Your task to perform on an android device: Clear all items from cart on costco.com. Add "razer thresher" to the cart on costco.com Image 0: 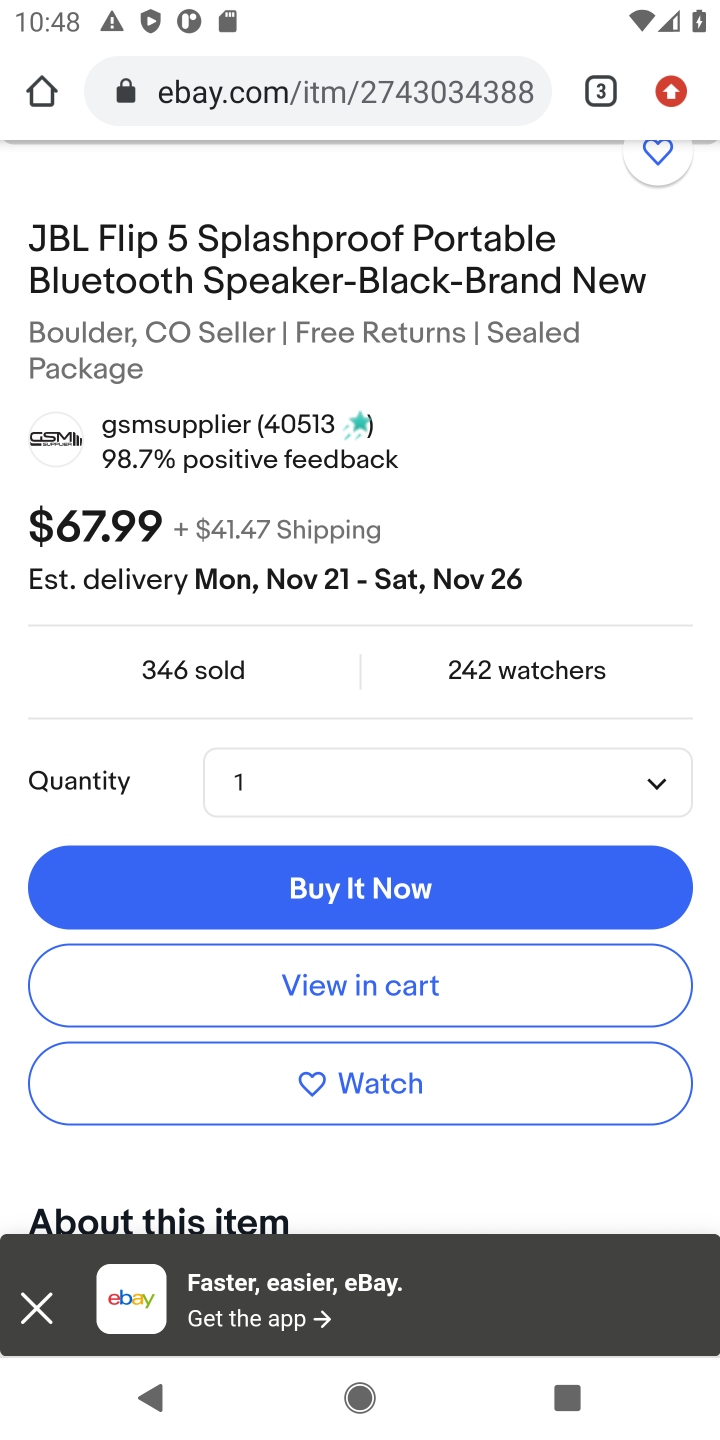
Step 0: press home button
Your task to perform on an android device: Clear all items from cart on costco.com. Add "razer thresher" to the cart on costco.com Image 1: 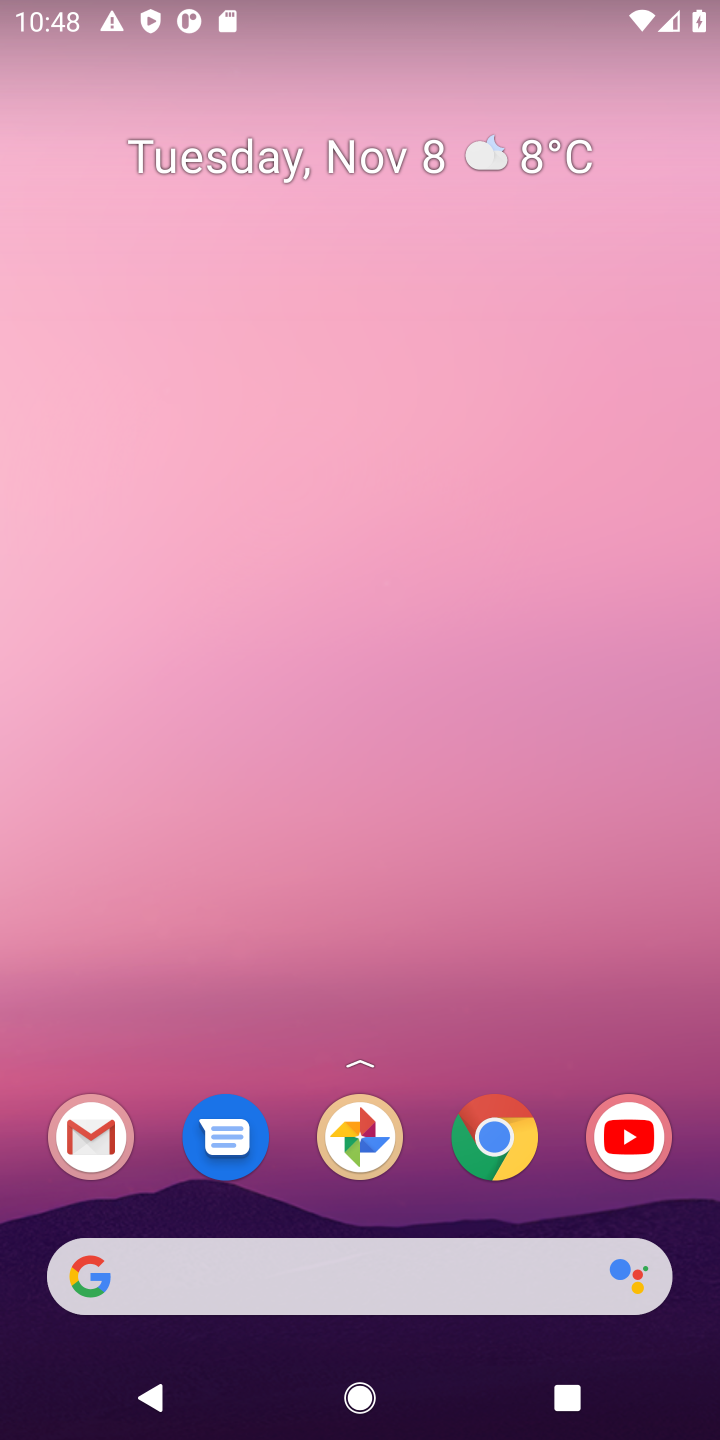
Step 1: click (503, 1152)
Your task to perform on an android device: Clear all items from cart on costco.com. Add "razer thresher" to the cart on costco.com Image 2: 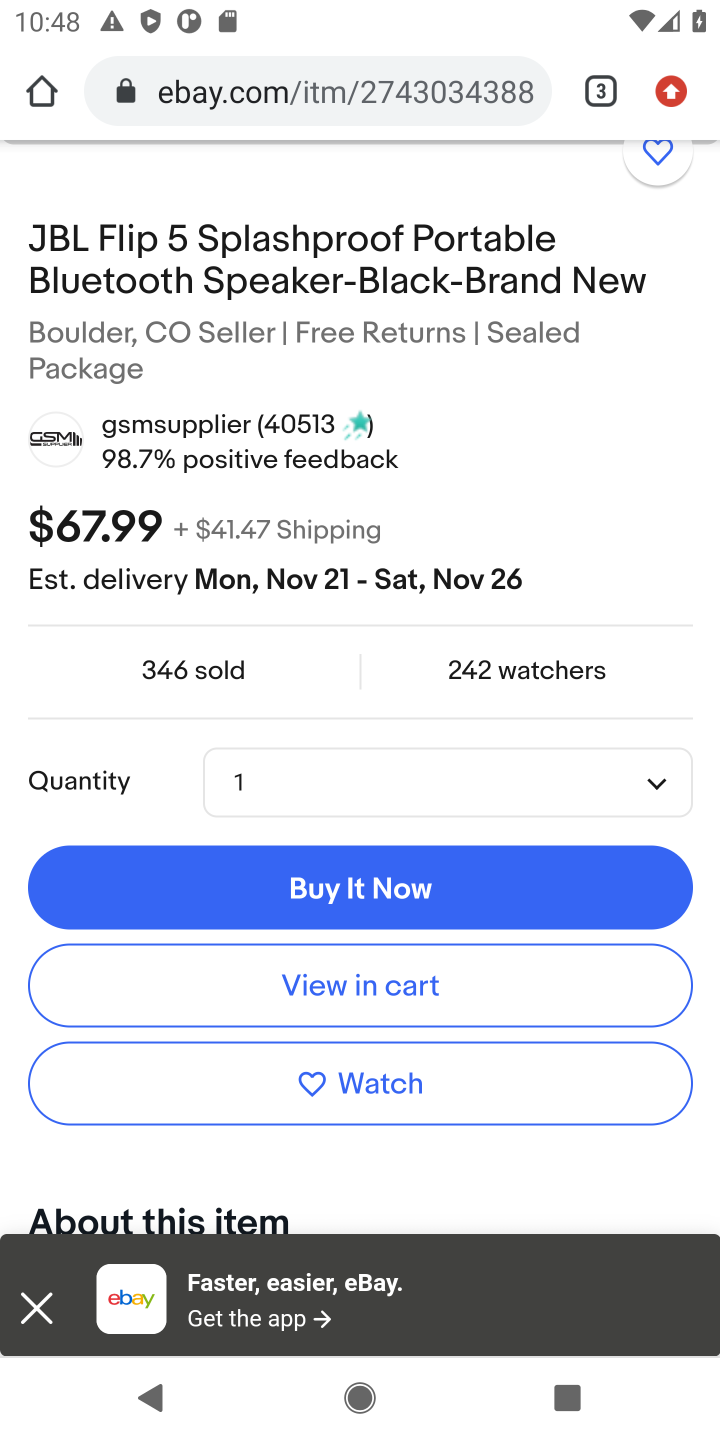
Step 2: click (604, 93)
Your task to perform on an android device: Clear all items from cart on costco.com. Add "razer thresher" to the cart on costco.com Image 3: 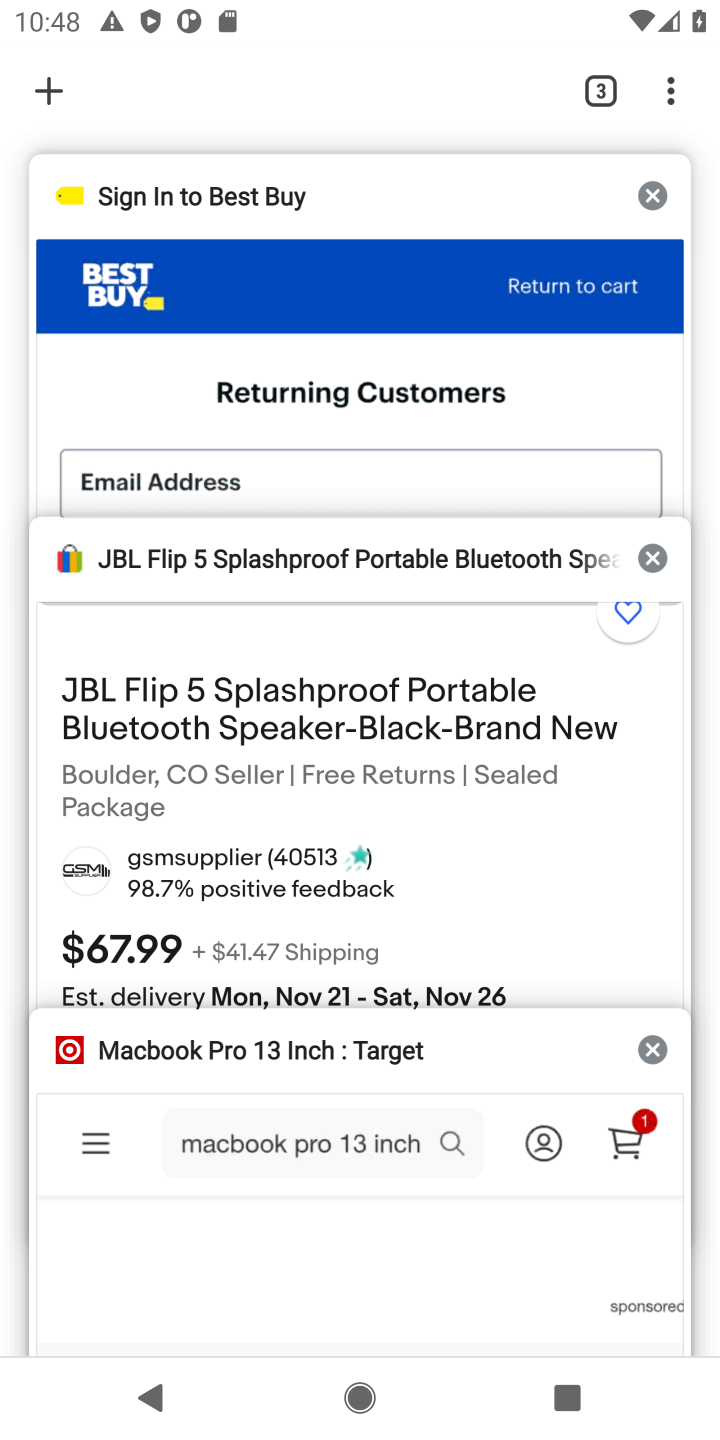
Step 3: click (43, 77)
Your task to perform on an android device: Clear all items from cart on costco.com. Add "razer thresher" to the cart on costco.com Image 4: 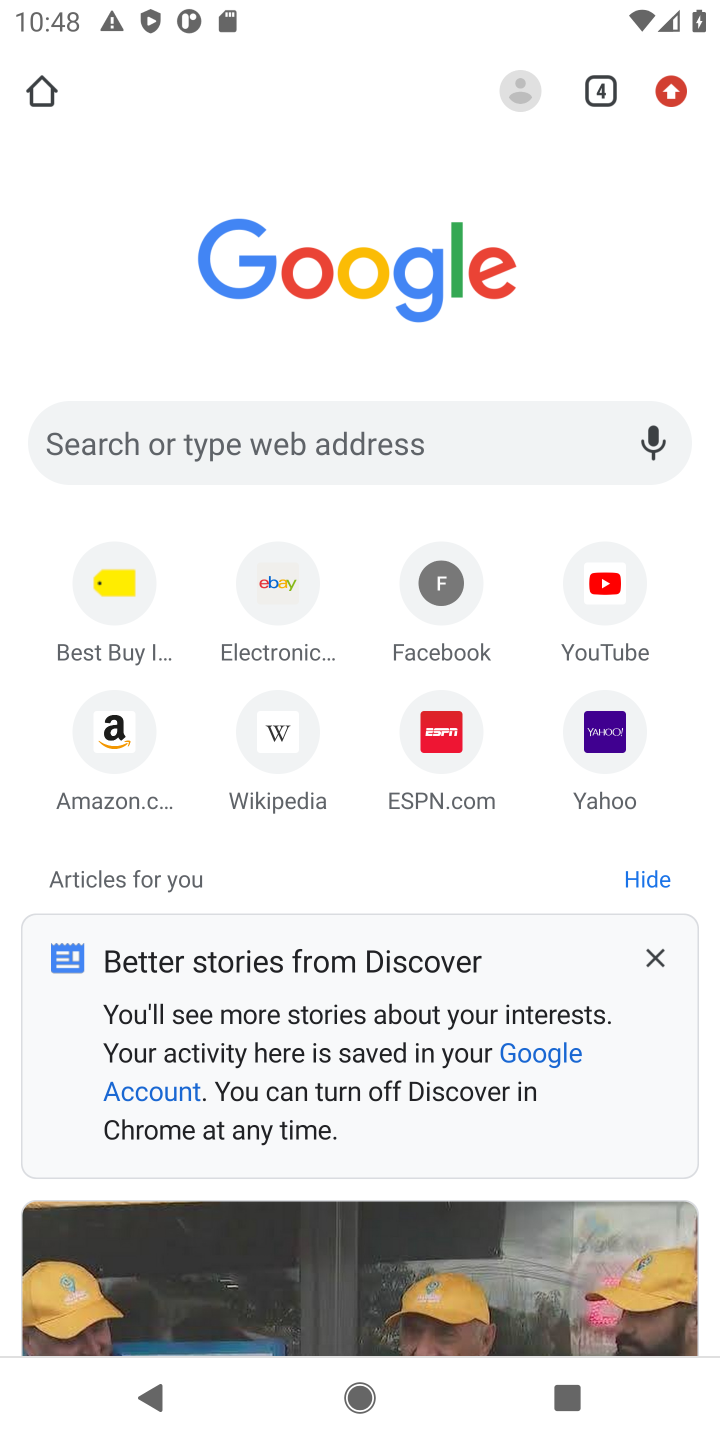
Step 4: click (275, 422)
Your task to perform on an android device: Clear all items from cart on costco.com. Add "razer thresher" to the cart on costco.com Image 5: 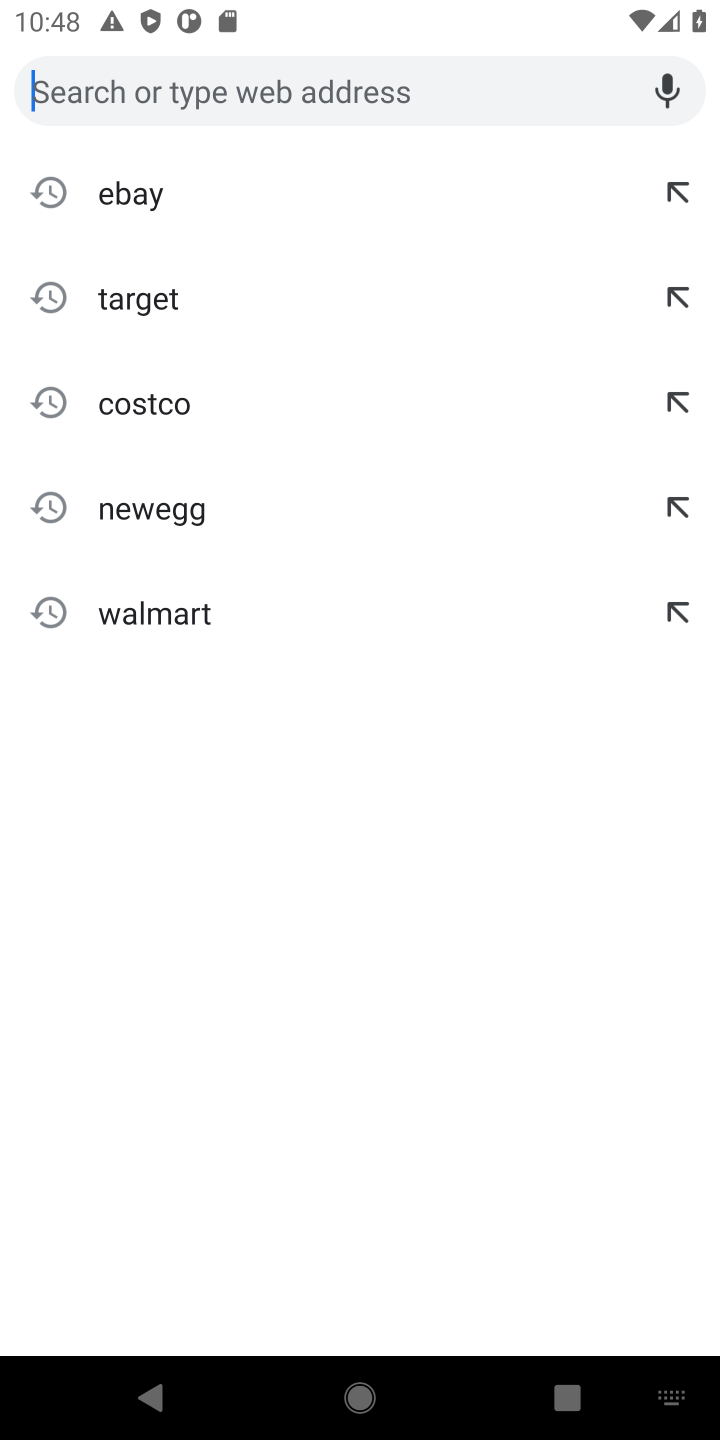
Step 5: click (116, 404)
Your task to perform on an android device: Clear all items from cart on costco.com. Add "razer thresher" to the cart on costco.com Image 6: 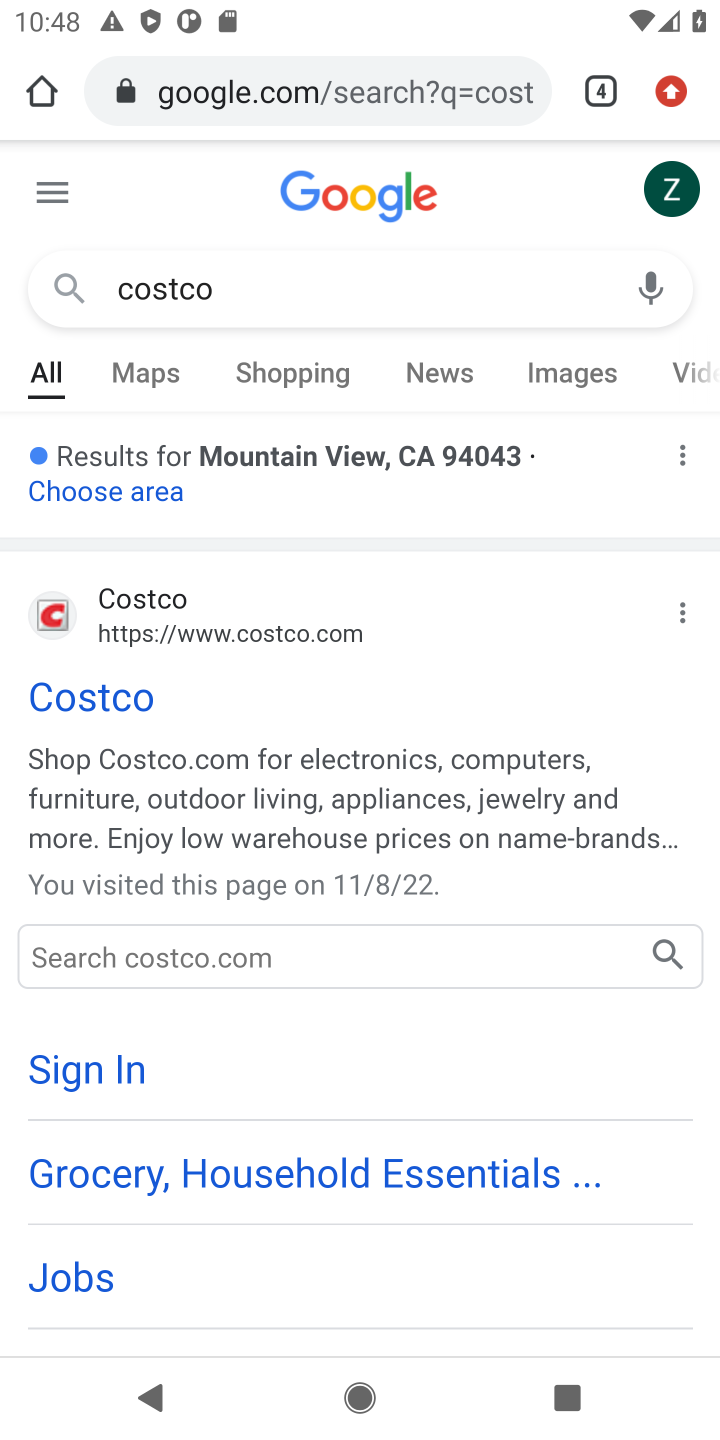
Step 6: click (176, 964)
Your task to perform on an android device: Clear all items from cart on costco.com. Add "razer thresher" to the cart on costco.com Image 7: 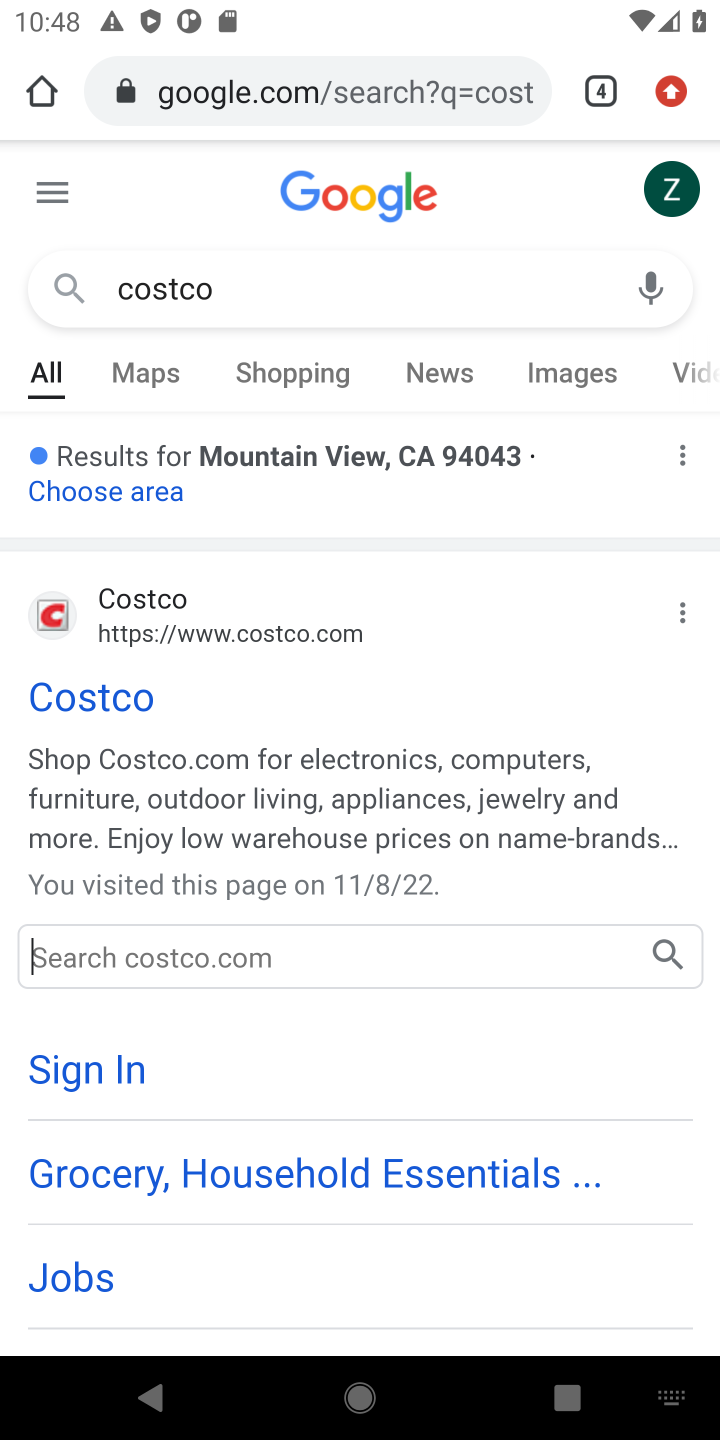
Step 7: type "razer thresher"
Your task to perform on an android device: Clear all items from cart on costco.com. Add "razer thresher" to the cart on costco.com Image 8: 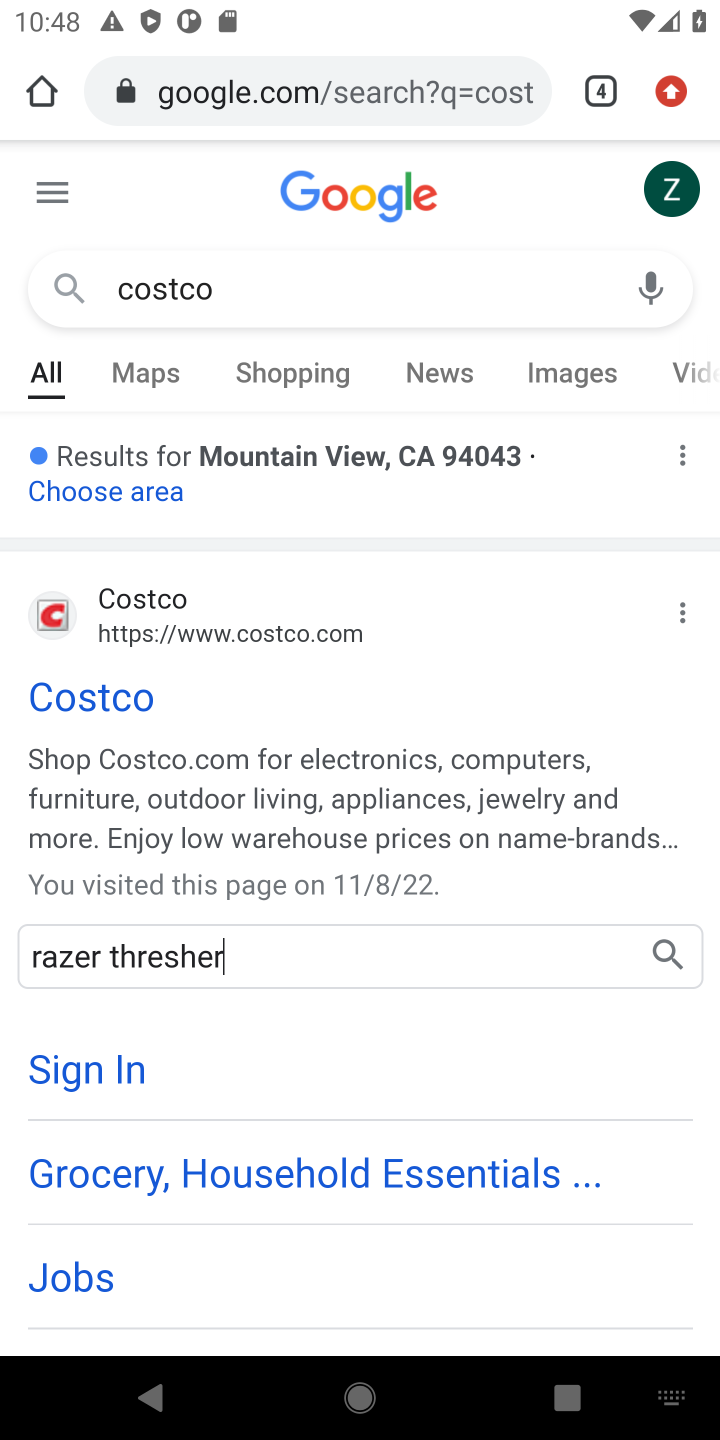
Step 8: click (669, 948)
Your task to perform on an android device: Clear all items from cart on costco.com. Add "razer thresher" to the cart on costco.com Image 9: 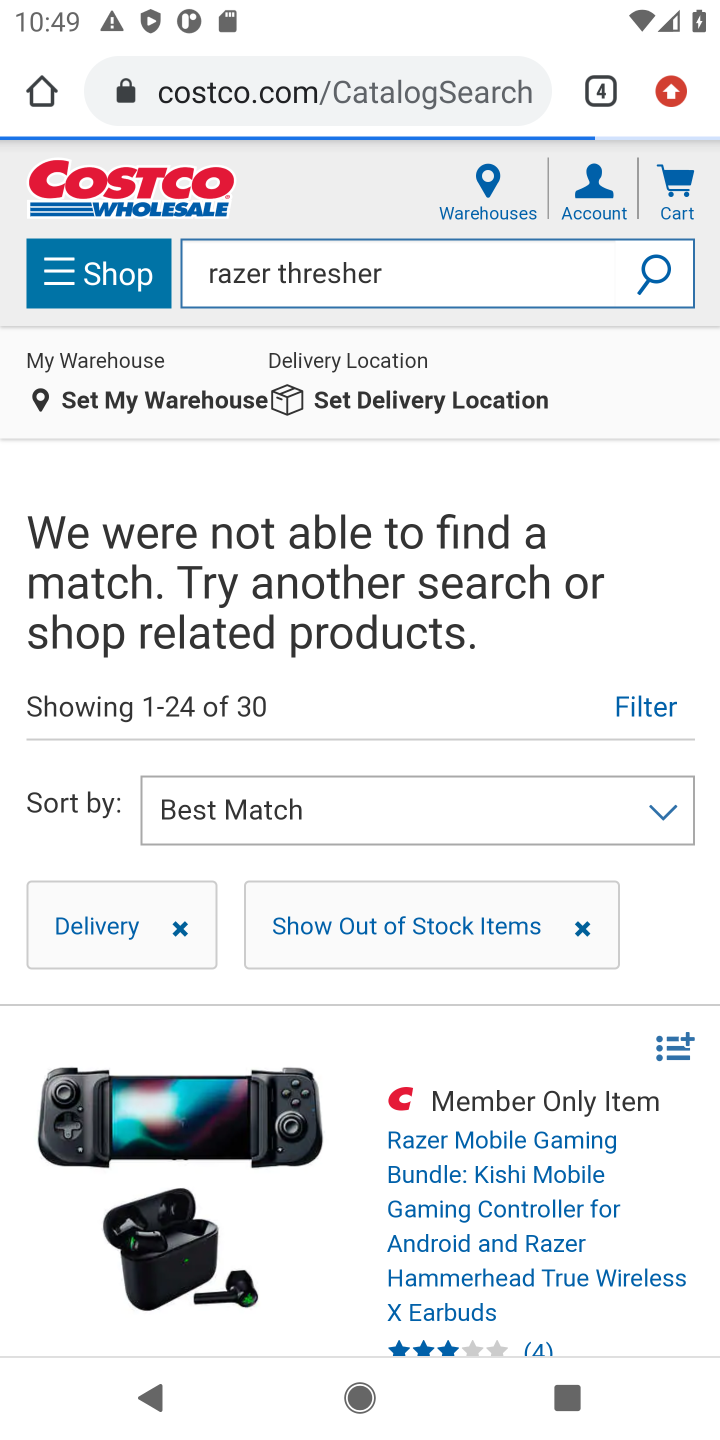
Step 9: click (504, 1198)
Your task to perform on an android device: Clear all items from cart on costco.com. Add "razer thresher" to the cart on costco.com Image 10: 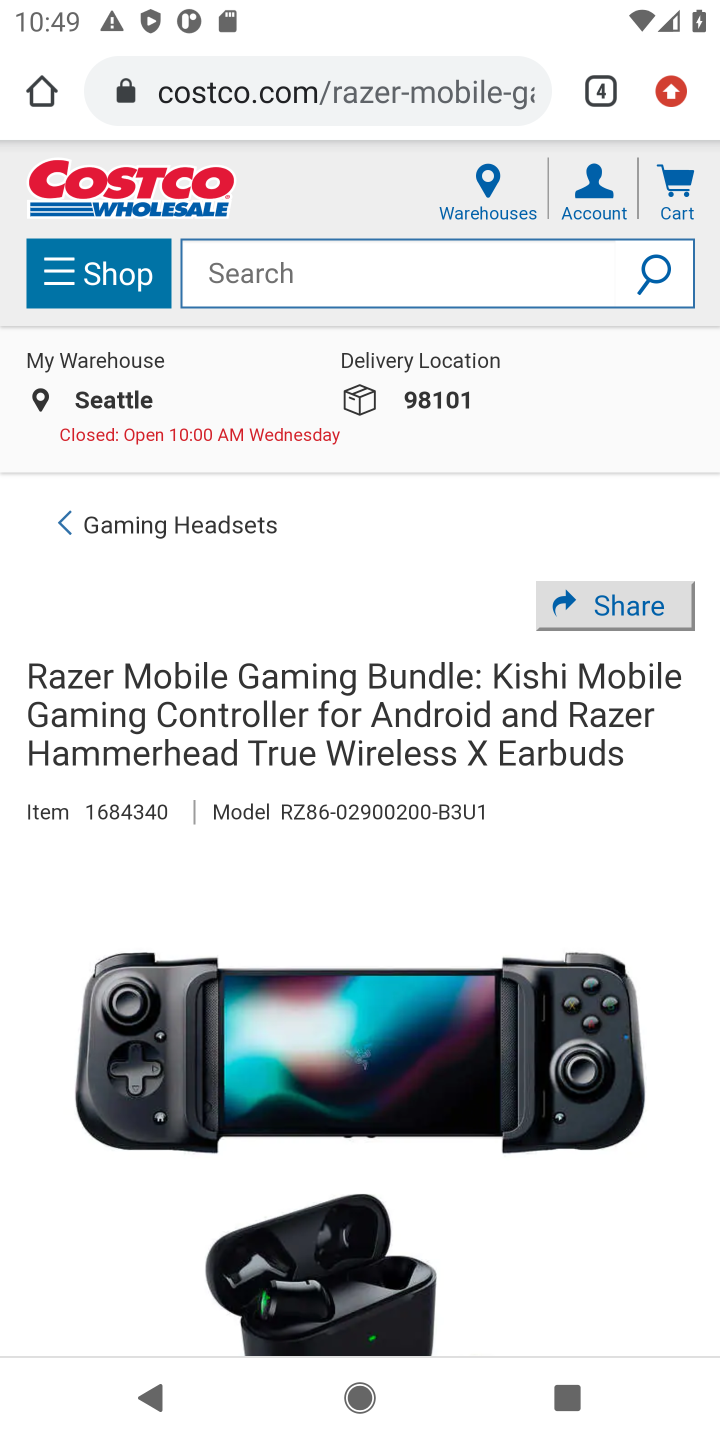
Step 10: task complete